Your task to perform on an android device: See recent photos Image 0: 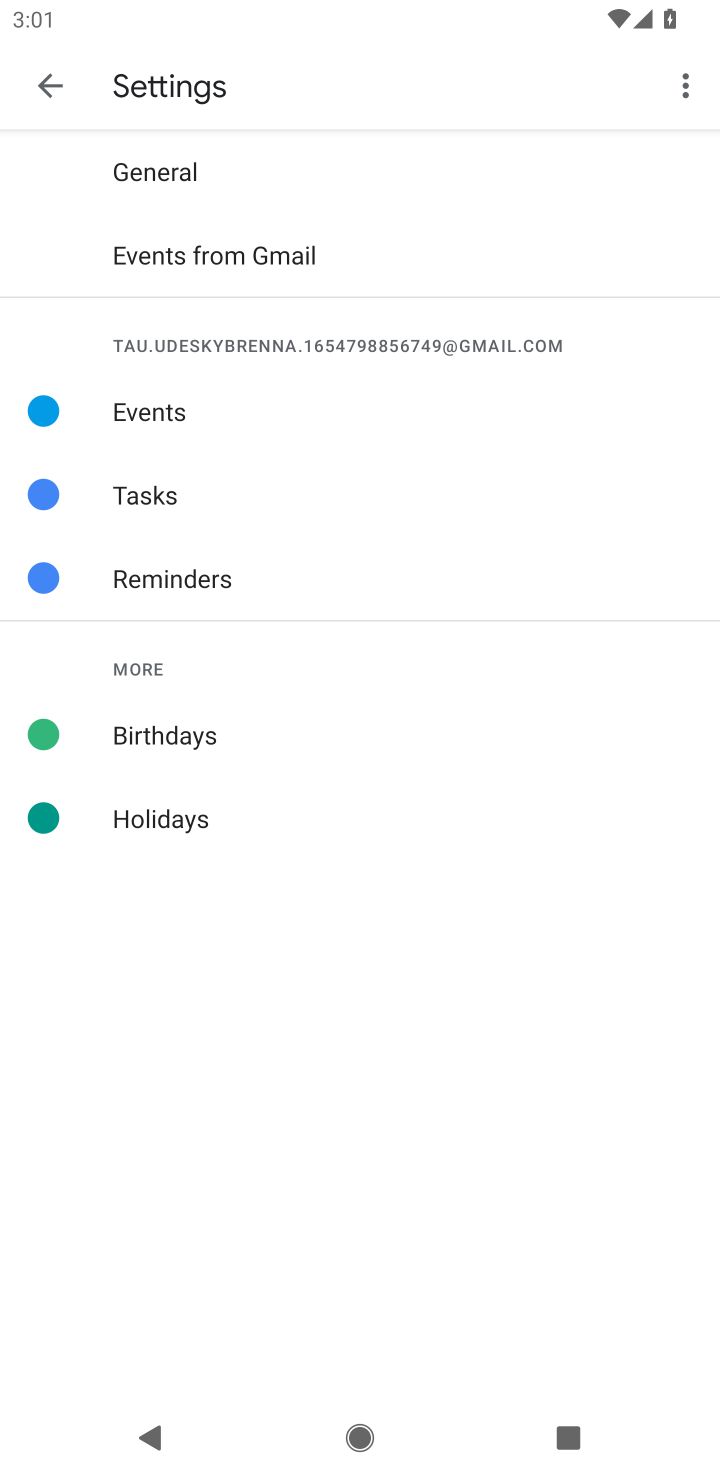
Step 0: press home button
Your task to perform on an android device: See recent photos Image 1: 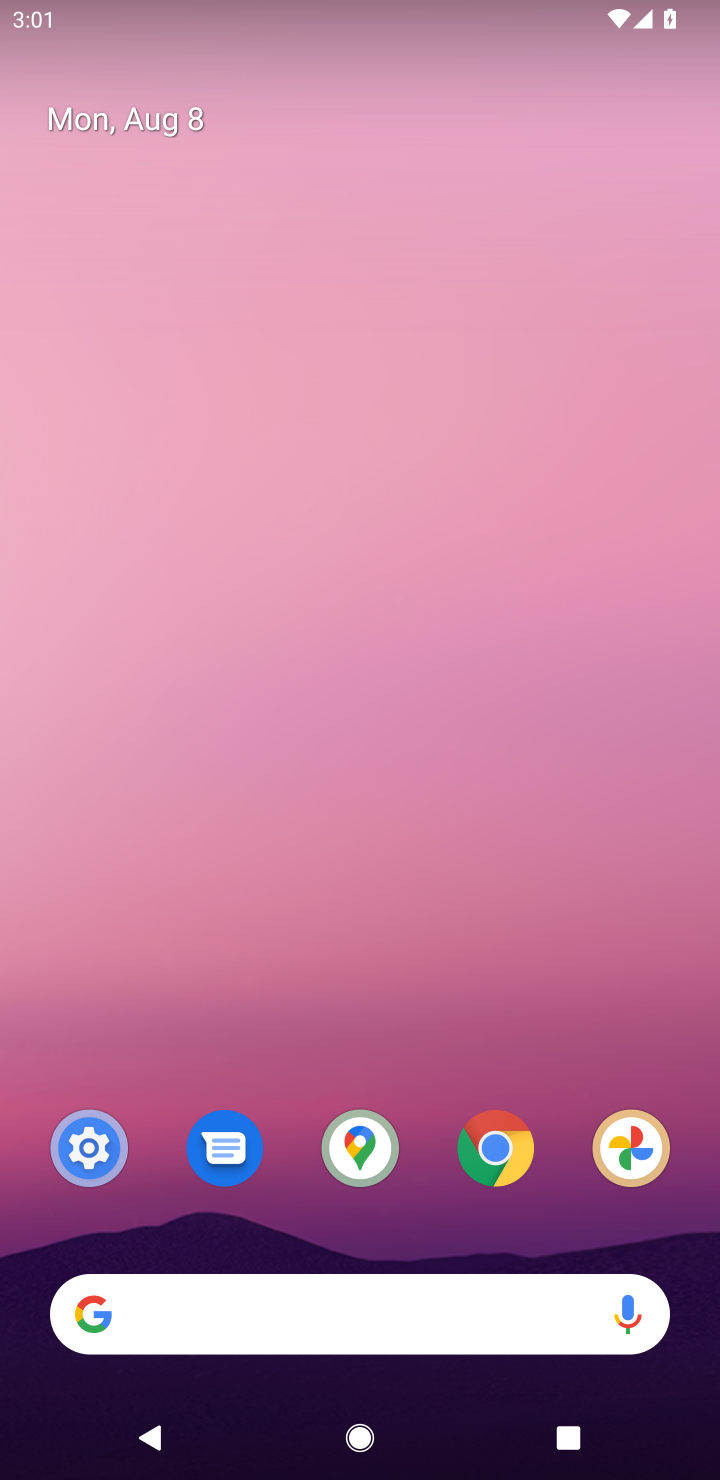
Step 1: drag from (446, 1006) to (446, 152)
Your task to perform on an android device: See recent photos Image 2: 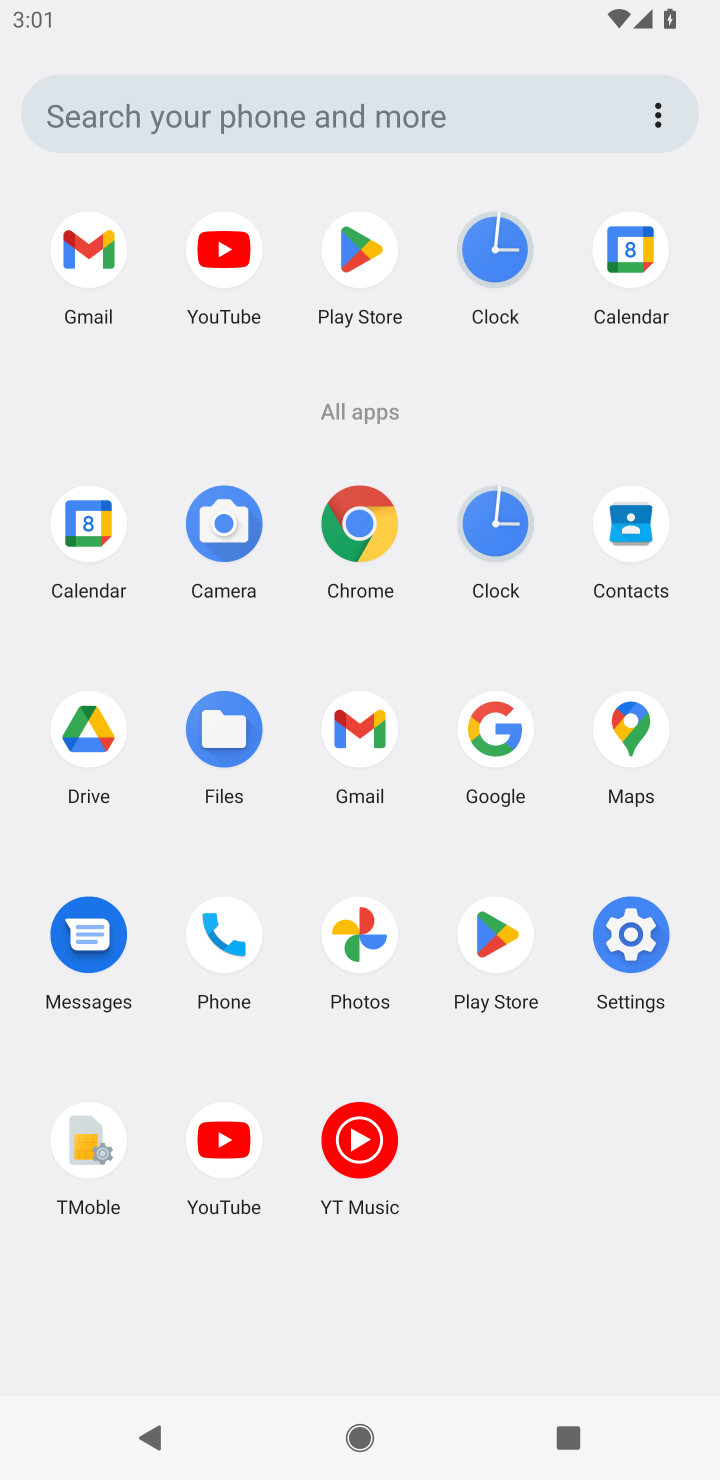
Step 2: click (355, 944)
Your task to perform on an android device: See recent photos Image 3: 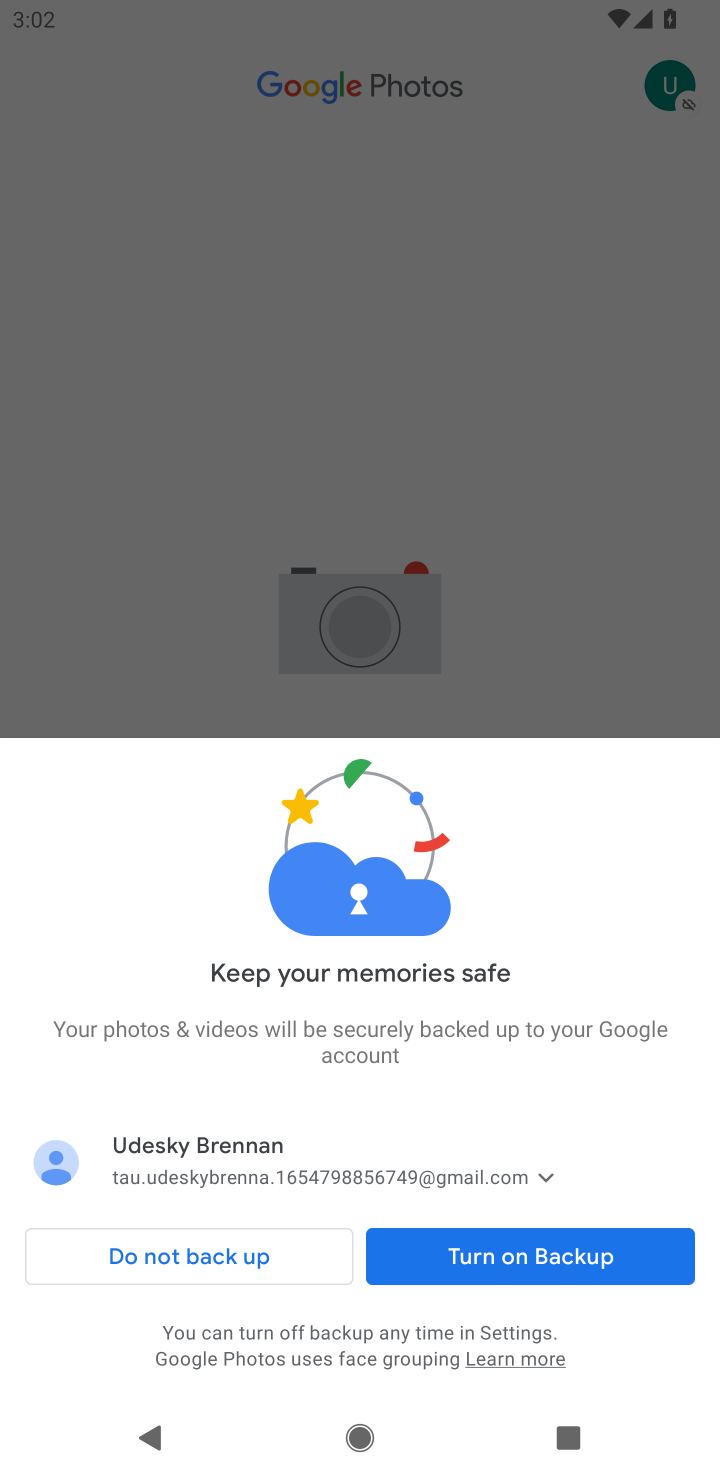
Step 3: click (239, 1263)
Your task to perform on an android device: See recent photos Image 4: 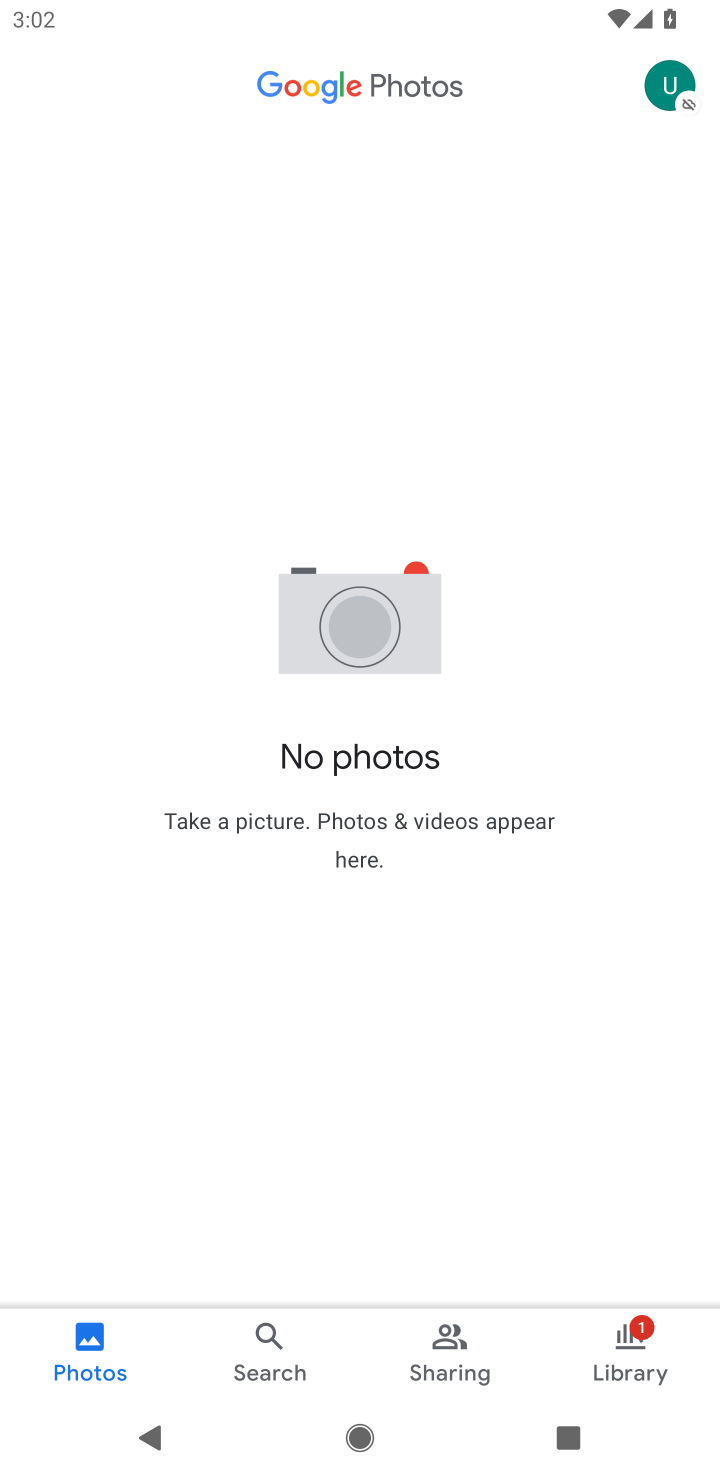
Step 4: task complete